Your task to perform on an android device: Show me the alarms in the clock app Image 0: 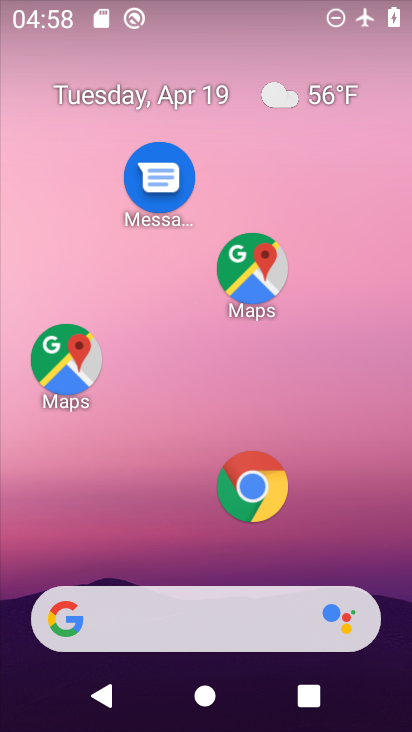
Step 0: drag from (319, 562) to (354, 58)
Your task to perform on an android device: Show me the alarms in the clock app Image 1: 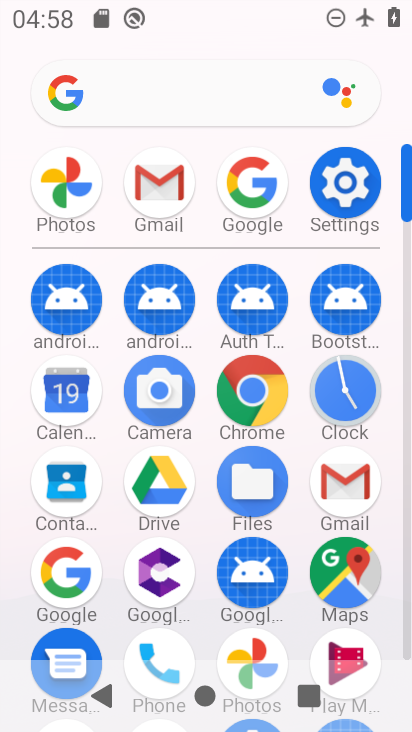
Step 1: click (355, 379)
Your task to perform on an android device: Show me the alarms in the clock app Image 2: 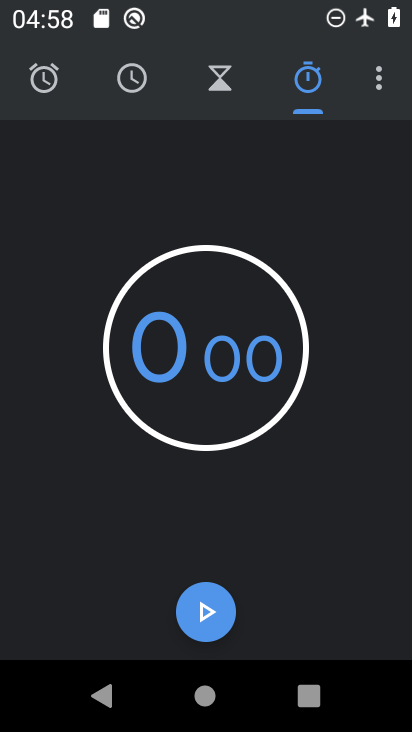
Step 2: click (19, 98)
Your task to perform on an android device: Show me the alarms in the clock app Image 3: 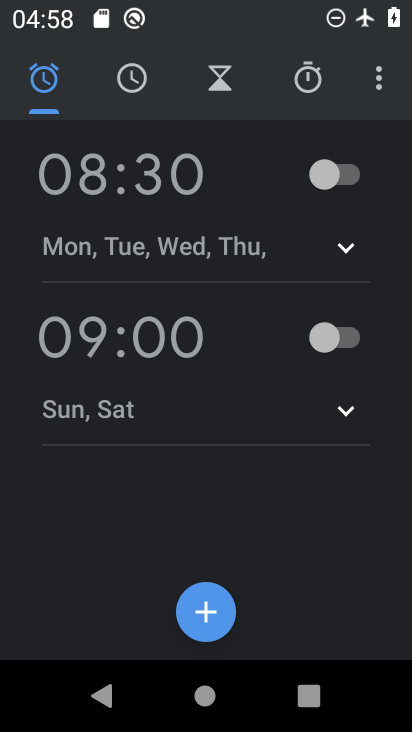
Step 3: task complete